Your task to perform on an android device: turn on priority inbox in the gmail app Image 0: 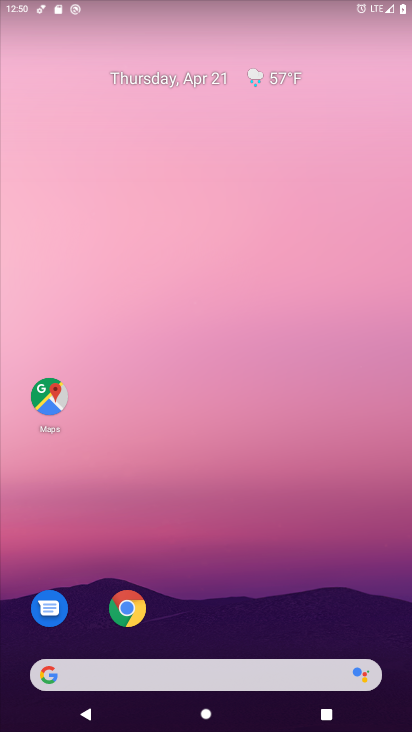
Step 0: drag from (211, 575) to (213, 103)
Your task to perform on an android device: turn on priority inbox in the gmail app Image 1: 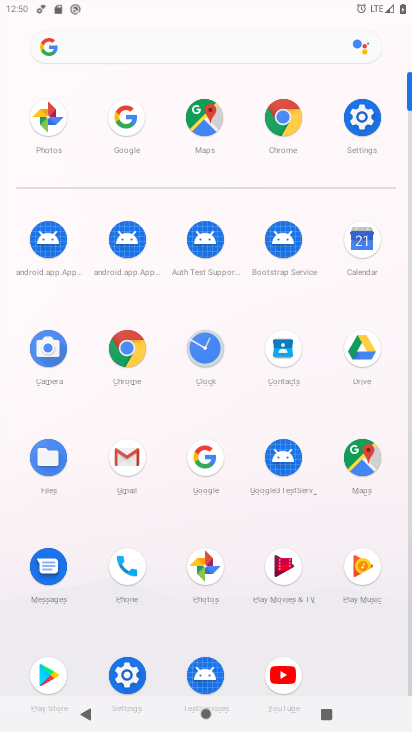
Step 1: click (137, 458)
Your task to perform on an android device: turn on priority inbox in the gmail app Image 2: 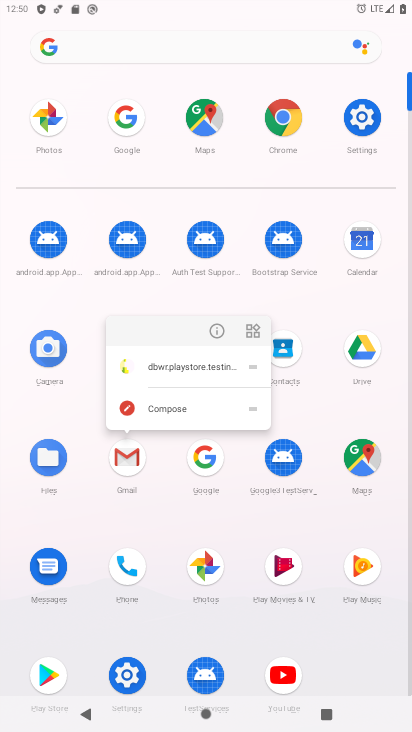
Step 2: click (111, 461)
Your task to perform on an android device: turn on priority inbox in the gmail app Image 3: 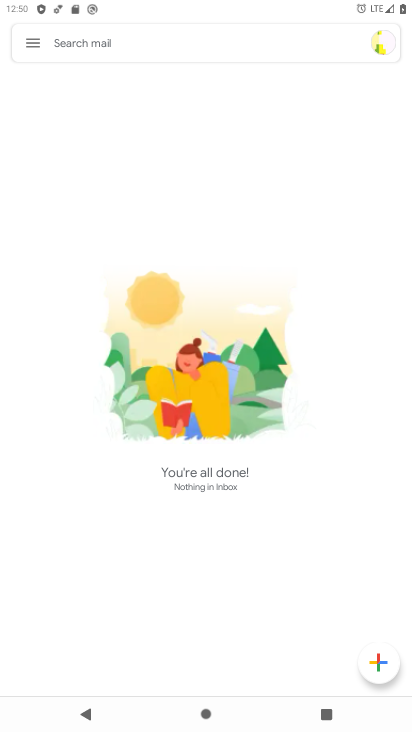
Step 3: click (36, 47)
Your task to perform on an android device: turn on priority inbox in the gmail app Image 4: 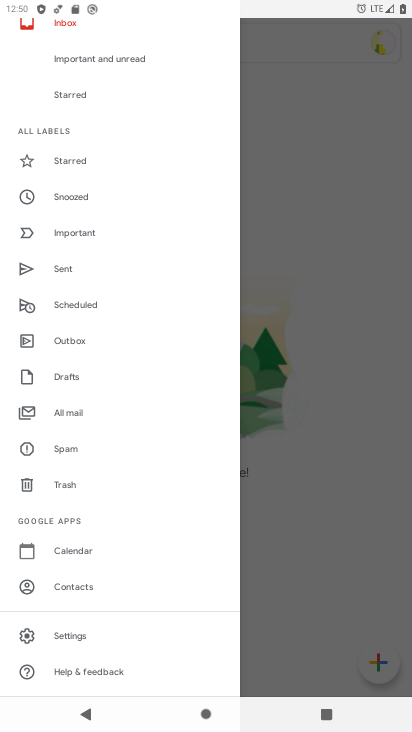
Step 4: click (90, 639)
Your task to perform on an android device: turn on priority inbox in the gmail app Image 5: 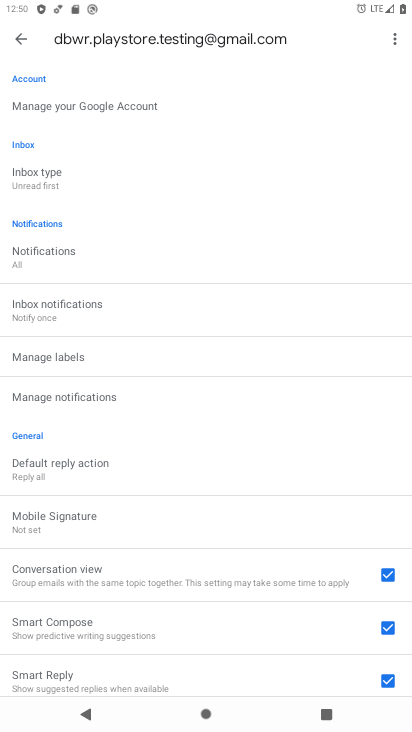
Step 5: click (90, 178)
Your task to perform on an android device: turn on priority inbox in the gmail app Image 6: 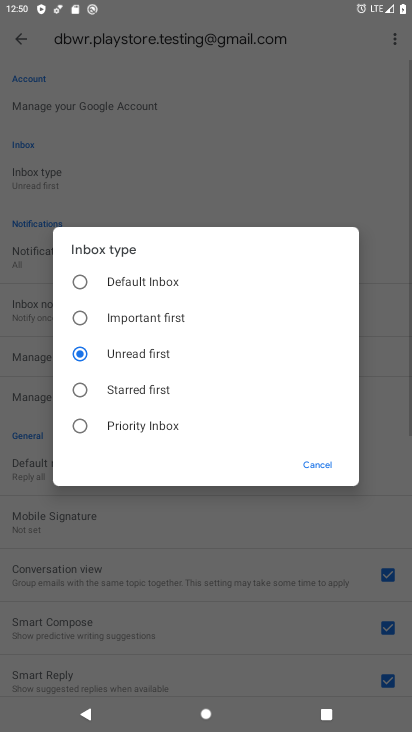
Step 6: click (125, 425)
Your task to perform on an android device: turn on priority inbox in the gmail app Image 7: 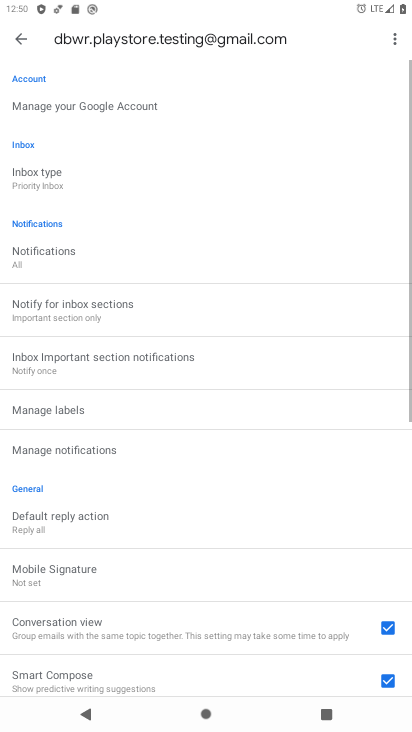
Step 7: task complete